Your task to perform on an android device: turn off notifications in google photos Image 0: 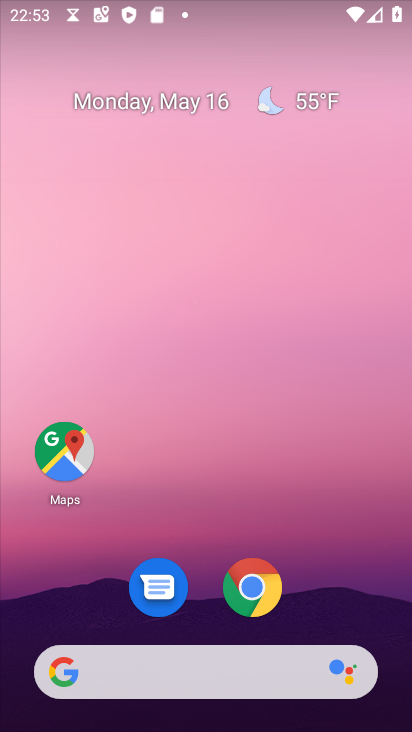
Step 0: drag from (290, 562) to (212, 11)
Your task to perform on an android device: turn off notifications in google photos Image 1: 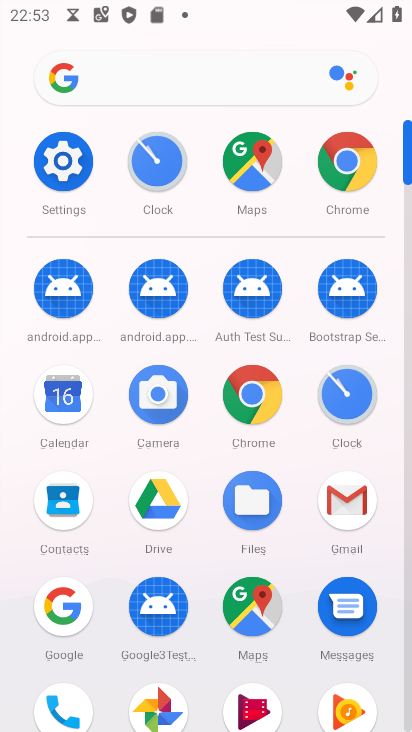
Step 1: drag from (14, 472) to (25, 163)
Your task to perform on an android device: turn off notifications in google photos Image 2: 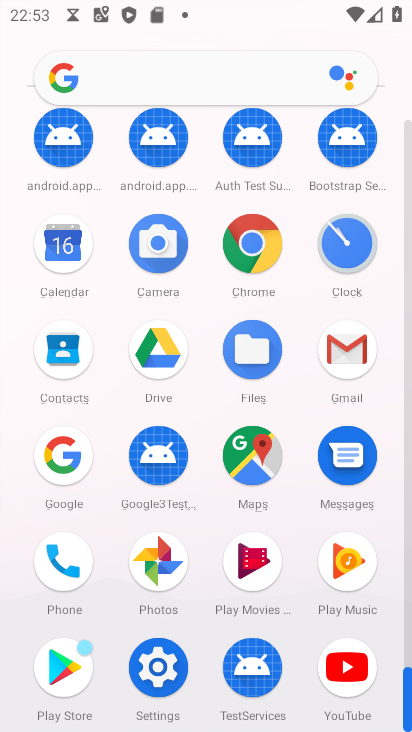
Step 2: click (153, 553)
Your task to perform on an android device: turn off notifications in google photos Image 3: 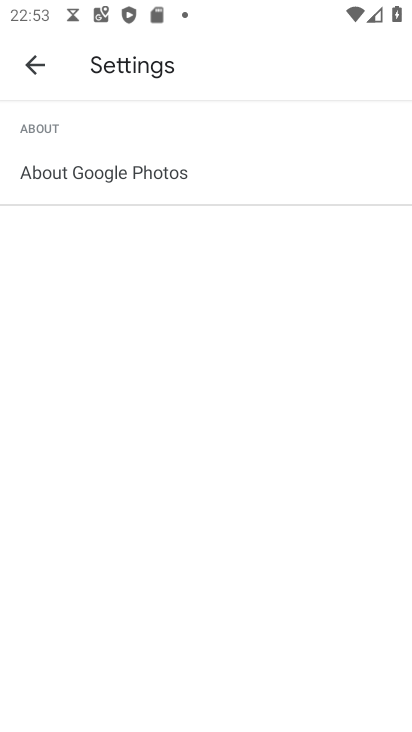
Step 3: click (28, 61)
Your task to perform on an android device: turn off notifications in google photos Image 4: 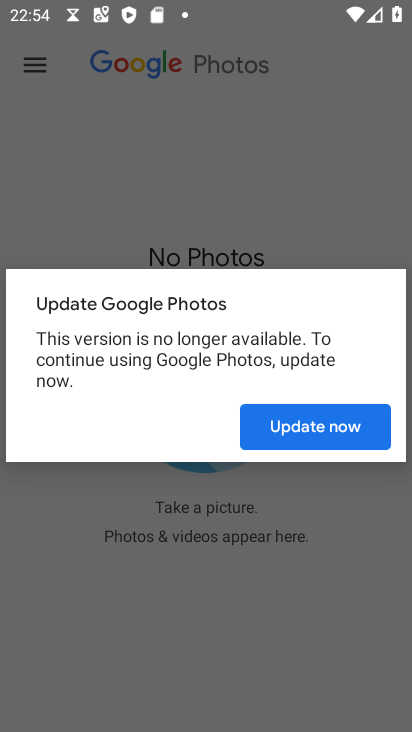
Step 4: click (326, 414)
Your task to perform on an android device: turn off notifications in google photos Image 5: 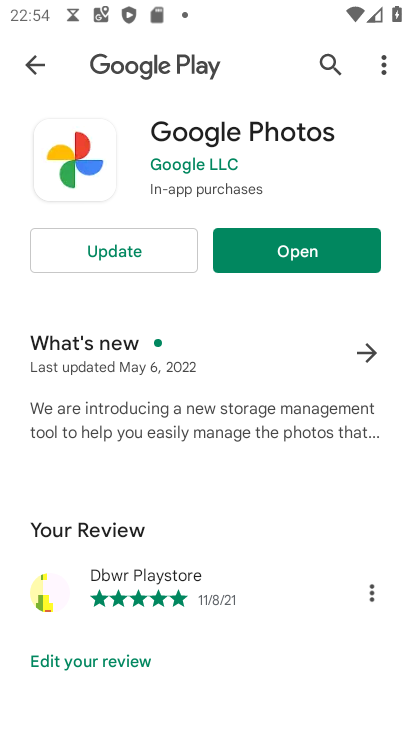
Step 5: click (125, 241)
Your task to perform on an android device: turn off notifications in google photos Image 6: 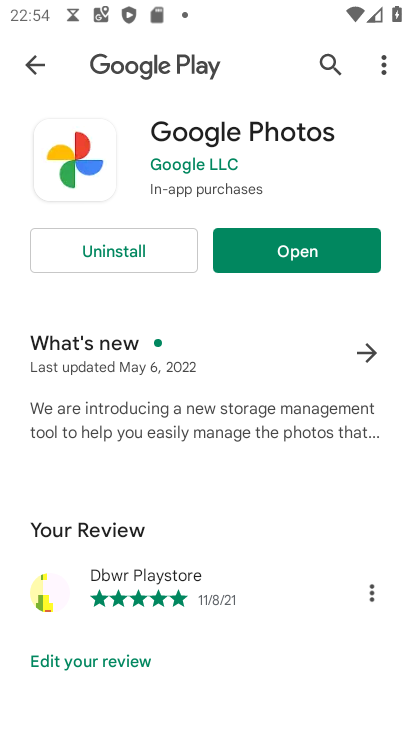
Step 6: click (288, 244)
Your task to perform on an android device: turn off notifications in google photos Image 7: 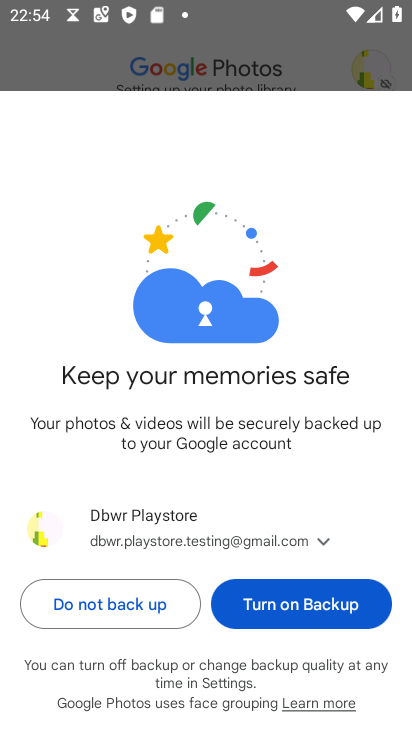
Step 7: click (285, 595)
Your task to perform on an android device: turn off notifications in google photos Image 8: 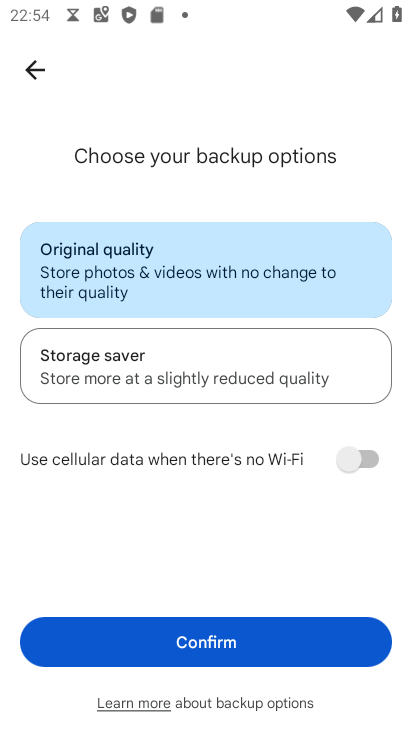
Step 8: click (289, 640)
Your task to perform on an android device: turn off notifications in google photos Image 9: 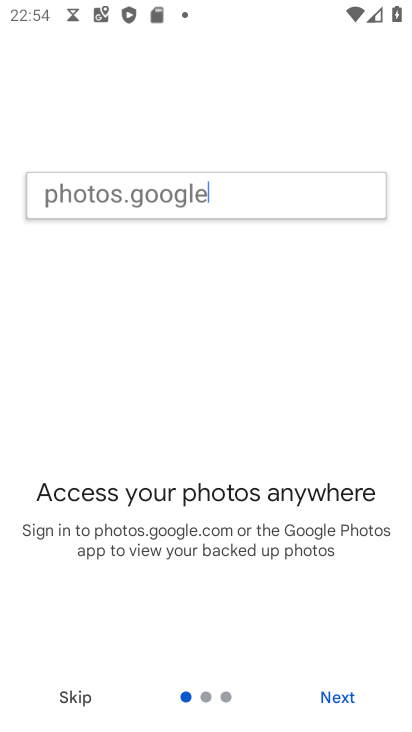
Step 9: click (335, 708)
Your task to perform on an android device: turn off notifications in google photos Image 10: 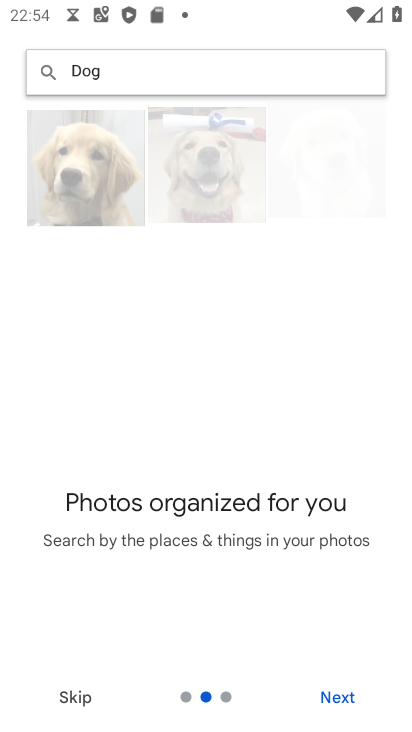
Step 10: click (335, 706)
Your task to perform on an android device: turn off notifications in google photos Image 11: 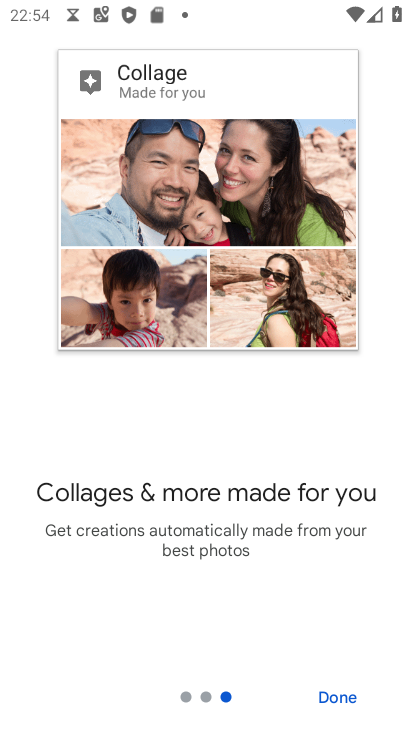
Step 11: click (321, 695)
Your task to perform on an android device: turn off notifications in google photos Image 12: 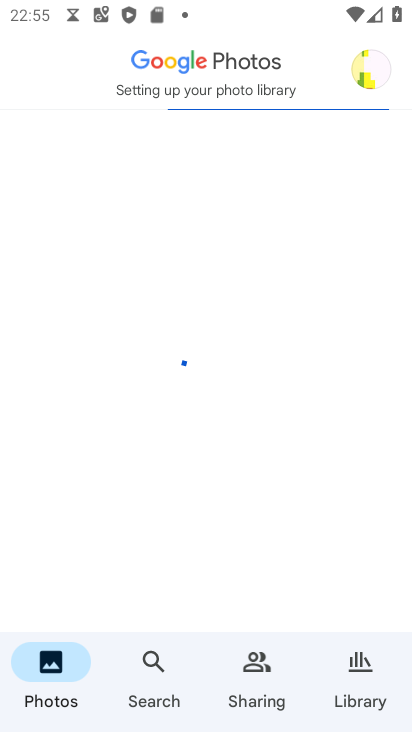
Step 12: click (381, 73)
Your task to perform on an android device: turn off notifications in google photos Image 13: 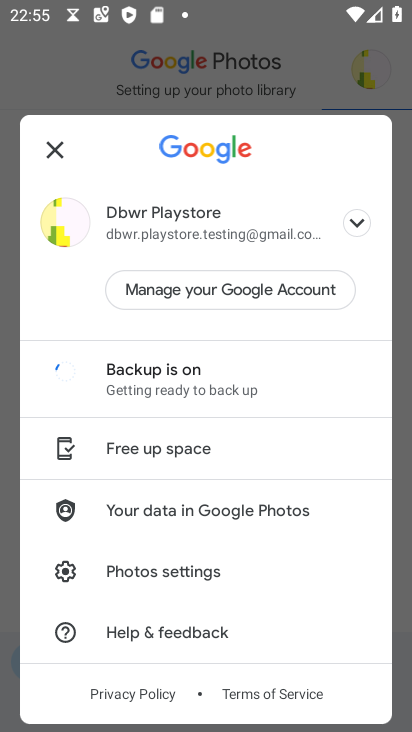
Step 13: click (193, 569)
Your task to perform on an android device: turn off notifications in google photos Image 14: 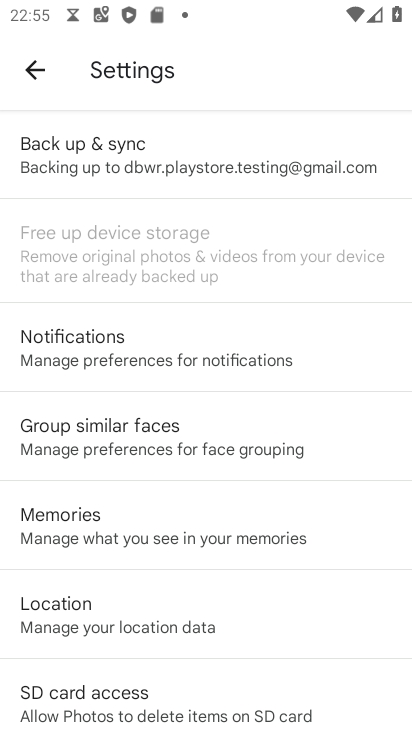
Step 14: drag from (277, 588) to (261, 155)
Your task to perform on an android device: turn off notifications in google photos Image 15: 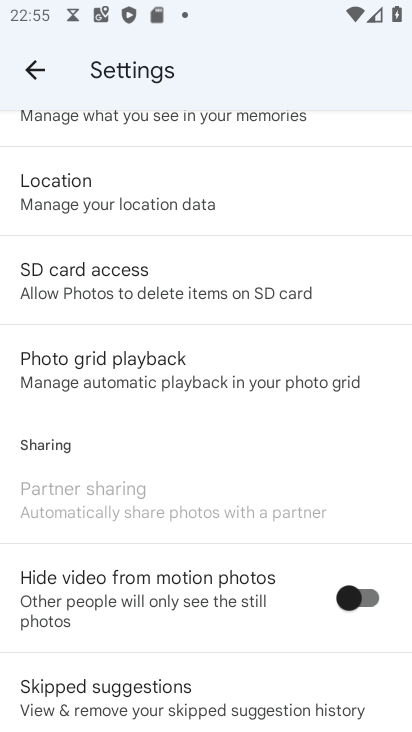
Step 15: drag from (246, 202) to (233, 635)
Your task to perform on an android device: turn off notifications in google photos Image 16: 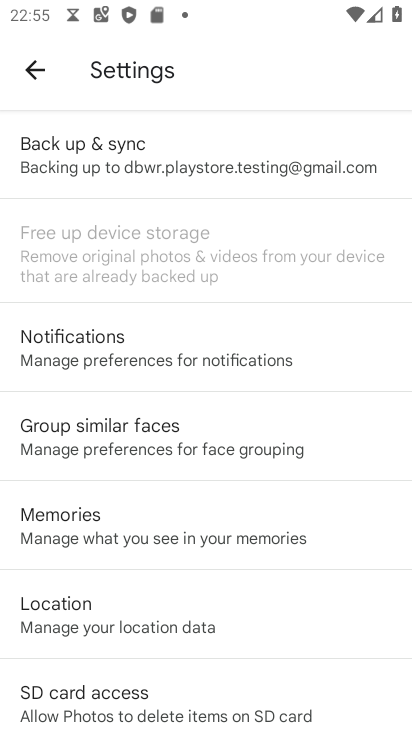
Step 16: click (177, 348)
Your task to perform on an android device: turn off notifications in google photos Image 17: 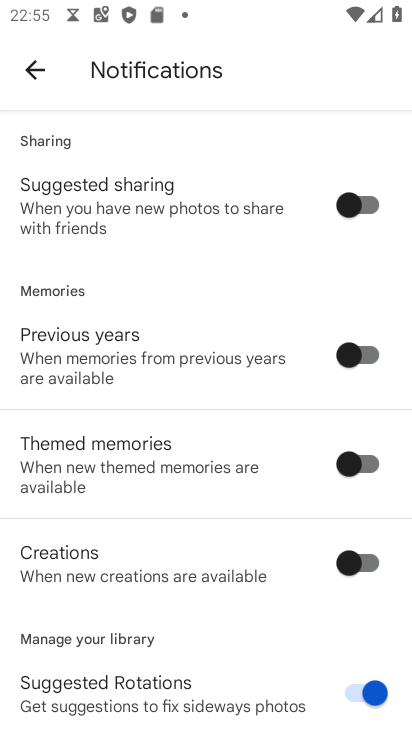
Step 17: drag from (207, 608) to (208, 122)
Your task to perform on an android device: turn off notifications in google photos Image 18: 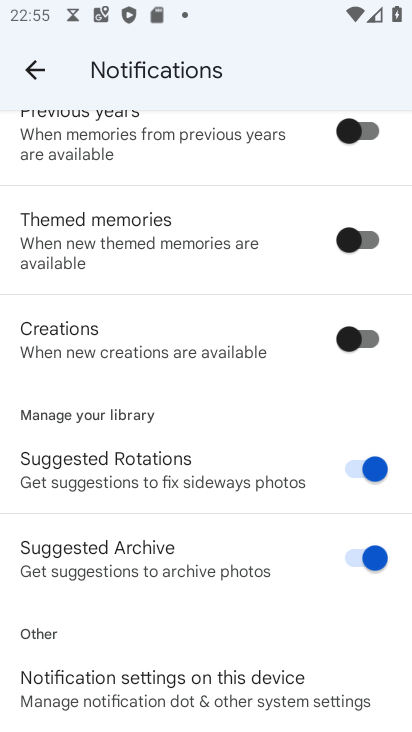
Step 18: click (136, 692)
Your task to perform on an android device: turn off notifications in google photos Image 19: 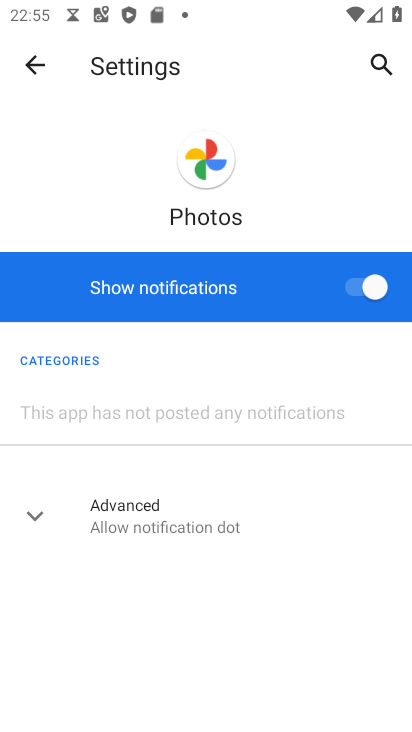
Step 19: click (344, 278)
Your task to perform on an android device: turn off notifications in google photos Image 20: 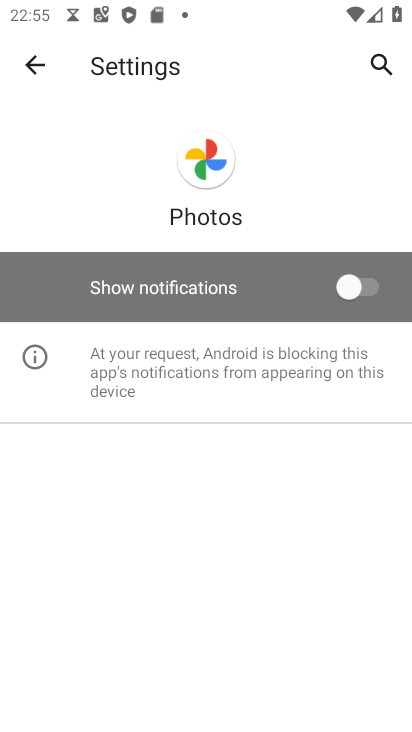
Step 20: task complete